Your task to perform on an android device: Go to Amazon Image 0: 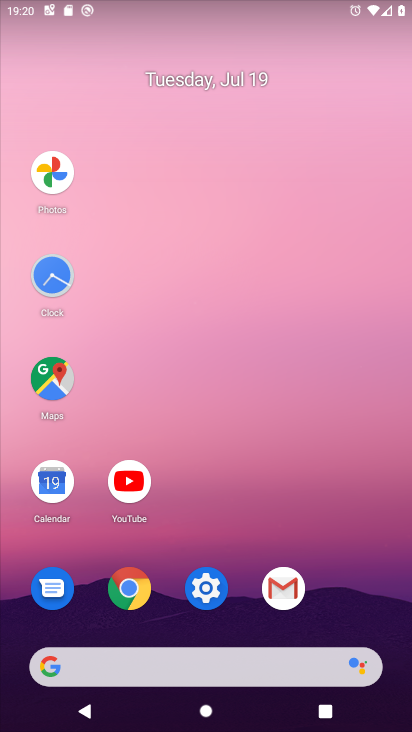
Step 0: click (130, 591)
Your task to perform on an android device: Go to Amazon Image 1: 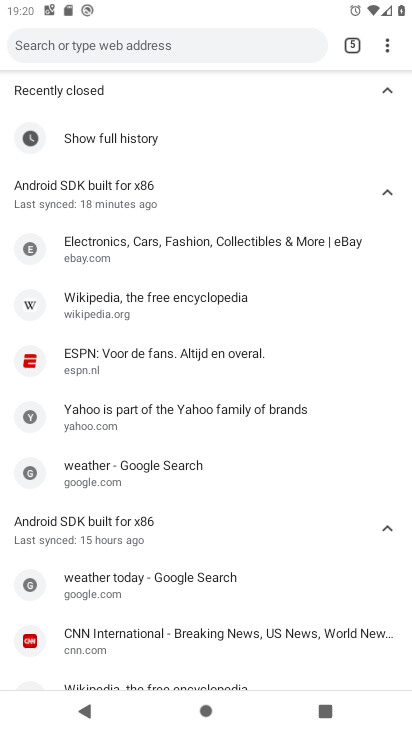
Step 1: click (391, 48)
Your task to perform on an android device: Go to Amazon Image 2: 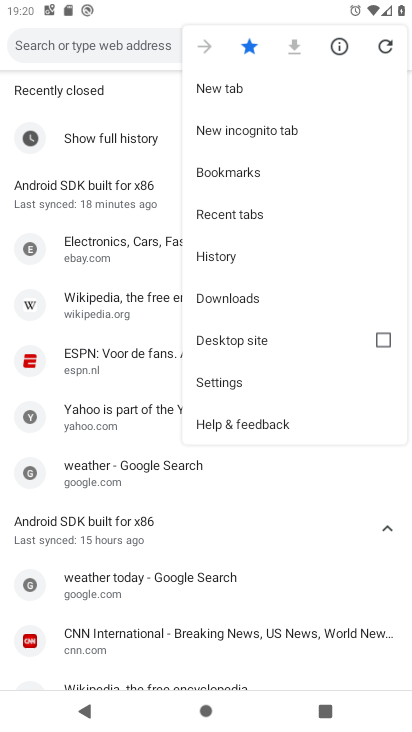
Step 2: click (213, 90)
Your task to perform on an android device: Go to Amazon Image 3: 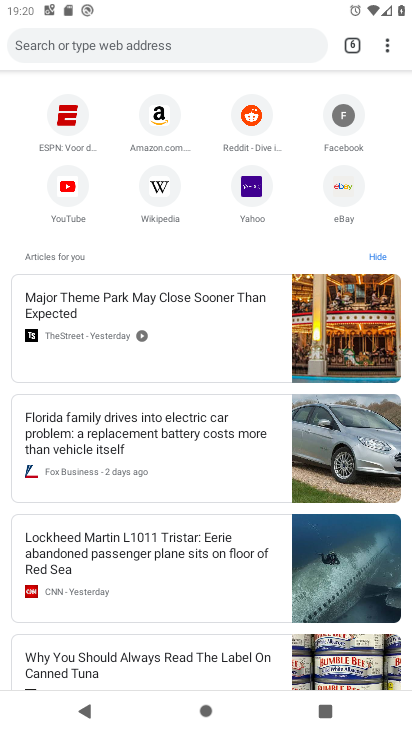
Step 3: click (162, 109)
Your task to perform on an android device: Go to Amazon Image 4: 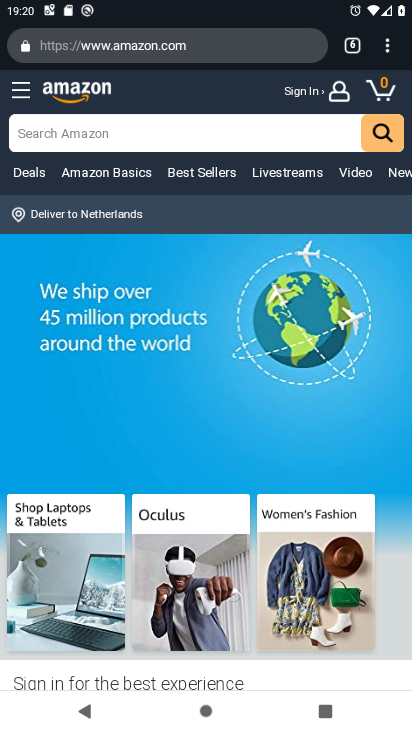
Step 4: task complete